Your task to perform on an android device: Open accessibility settings Image 0: 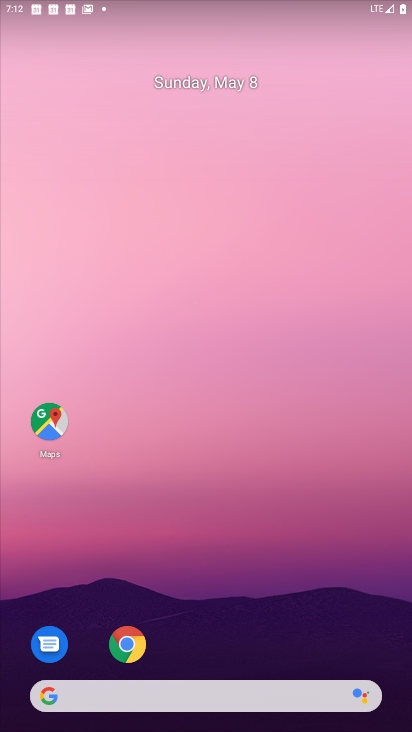
Step 0: drag from (302, 647) to (286, 269)
Your task to perform on an android device: Open accessibility settings Image 1: 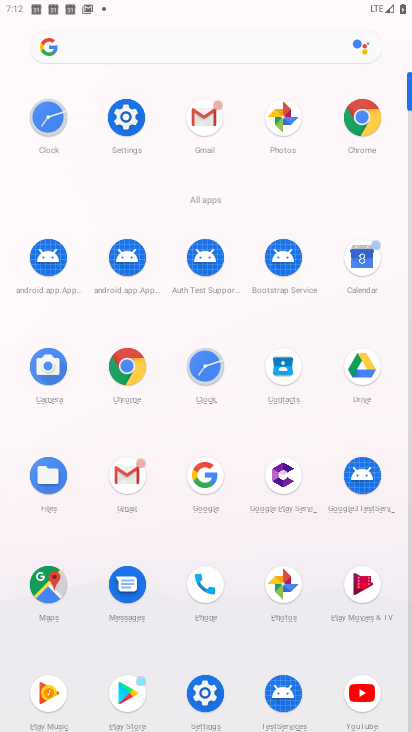
Step 1: click (198, 692)
Your task to perform on an android device: Open accessibility settings Image 2: 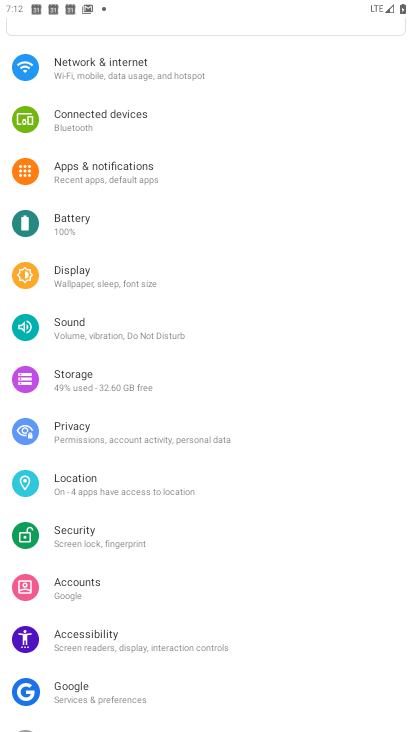
Step 2: click (152, 641)
Your task to perform on an android device: Open accessibility settings Image 3: 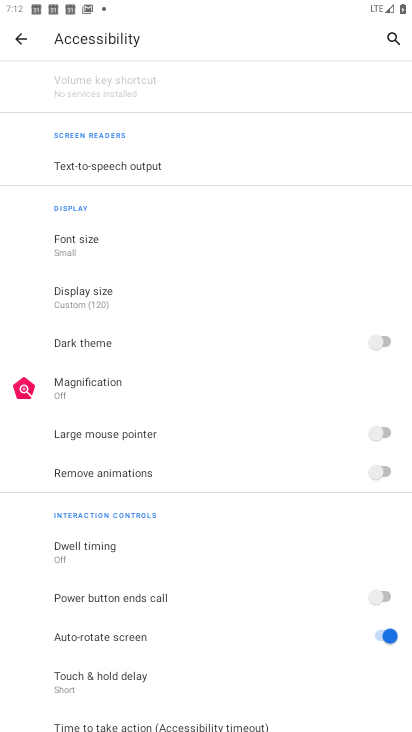
Step 3: task complete